Your task to perform on an android device: open app "Roku - Official Remote Control" (install if not already installed), go to login, and select forgot password Image 0: 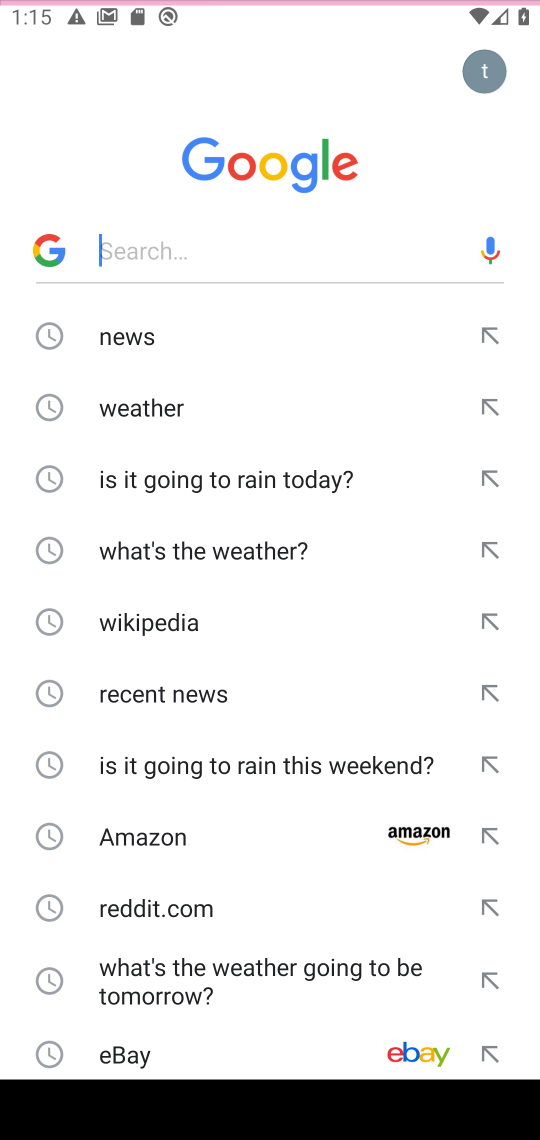
Step 0: press back button
Your task to perform on an android device: open app "Roku - Official Remote Control" (install if not already installed), go to login, and select forgot password Image 1: 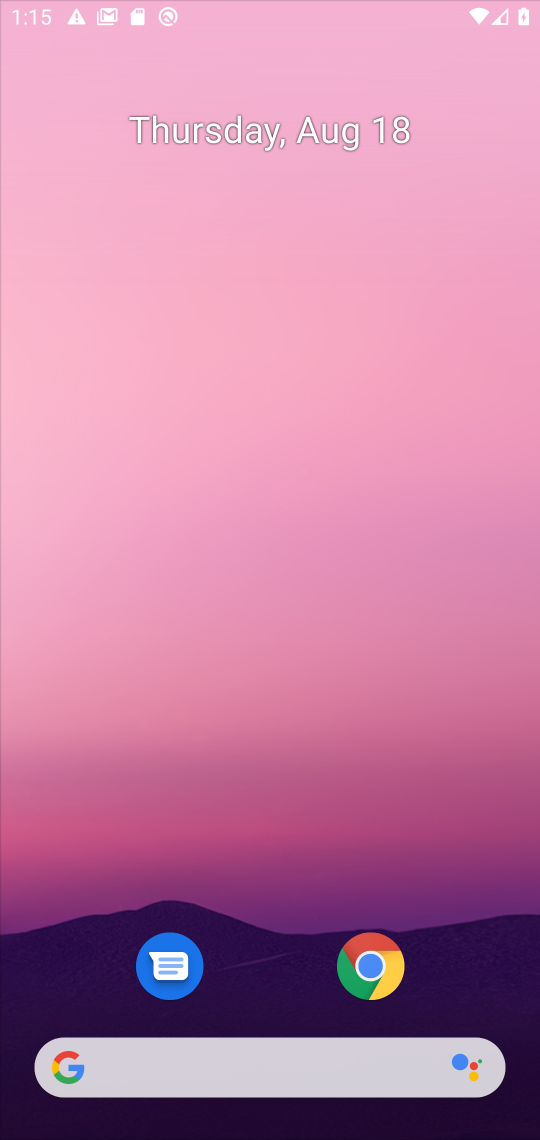
Step 1: press back button
Your task to perform on an android device: open app "Roku - Official Remote Control" (install if not already installed), go to login, and select forgot password Image 2: 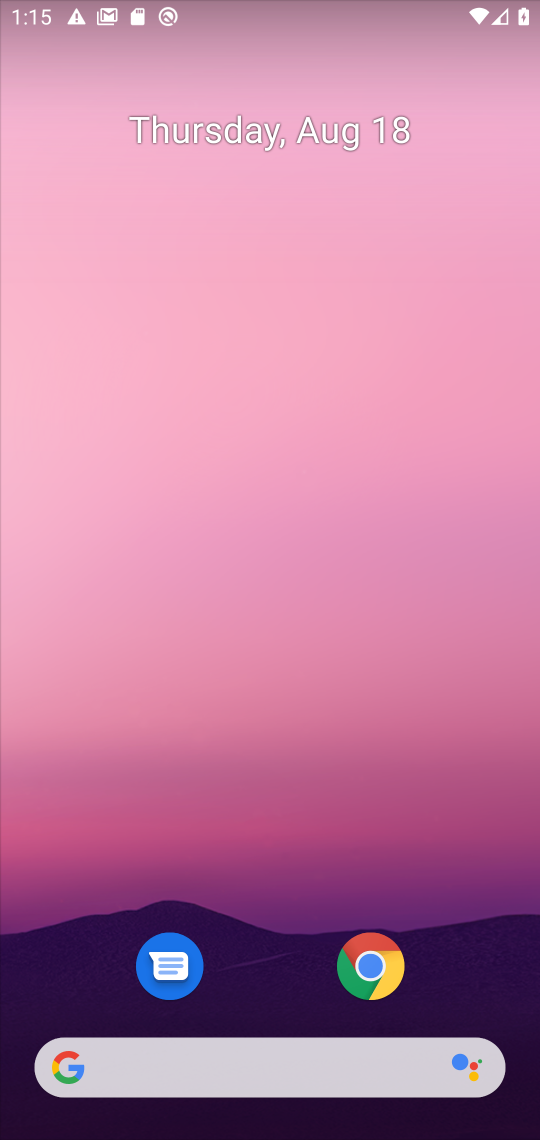
Step 2: drag from (280, 1035) to (237, 63)
Your task to perform on an android device: open app "Roku - Official Remote Control" (install if not already installed), go to login, and select forgot password Image 3: 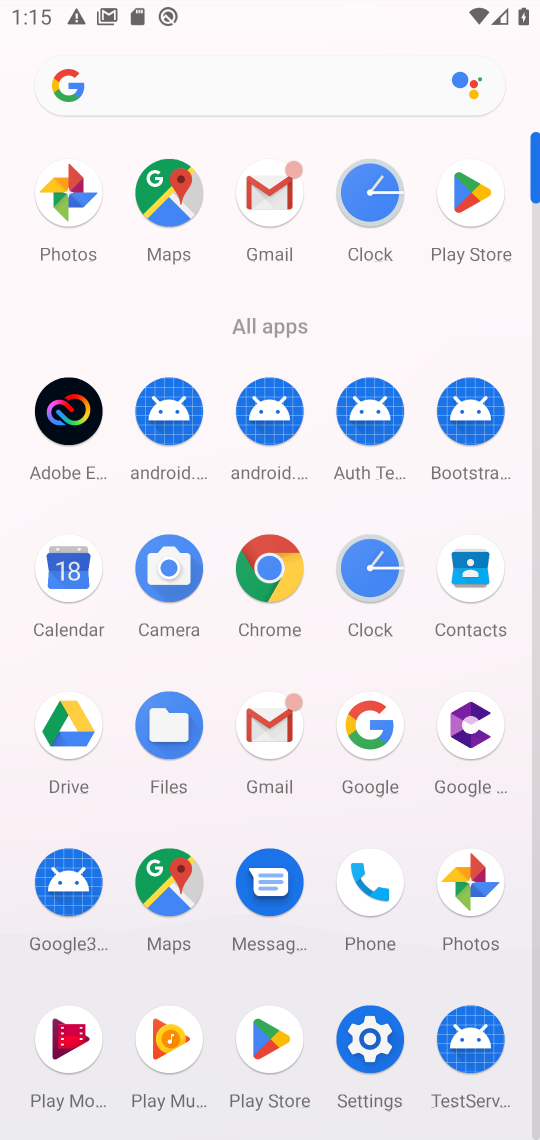
Step 3: click (261, 1050)
Your task to perform on an android device: open app "Roku - Official Remote Control" (install if not already installed), go to login, and select forgot password Image 4: 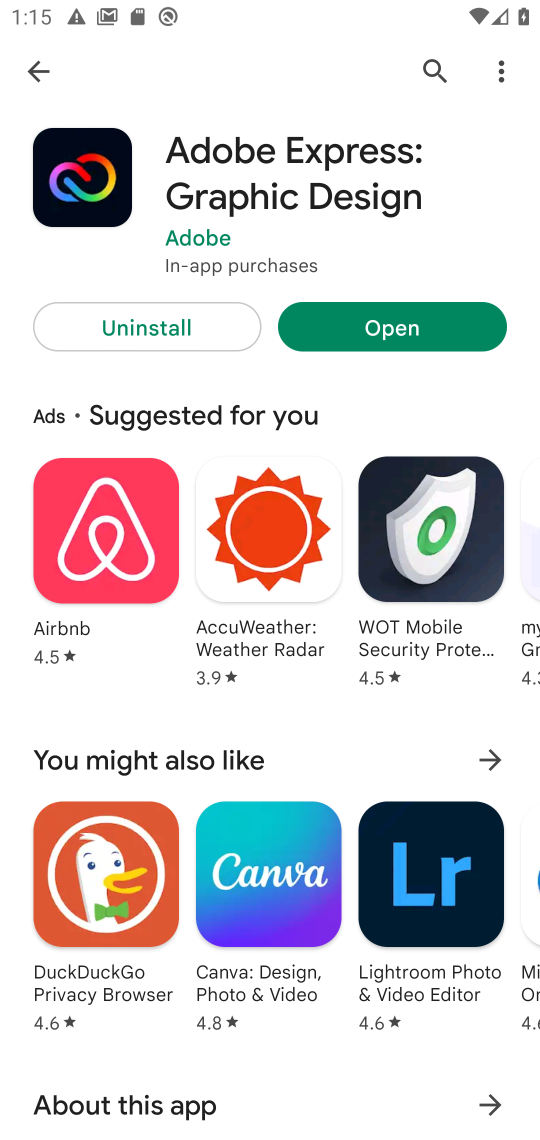
Step 4: click (39, 78)
Your task to perform on an android device: open app "Roku - Official Remote Control" (install if not already installed), go to login, and select forgot password Image 5: 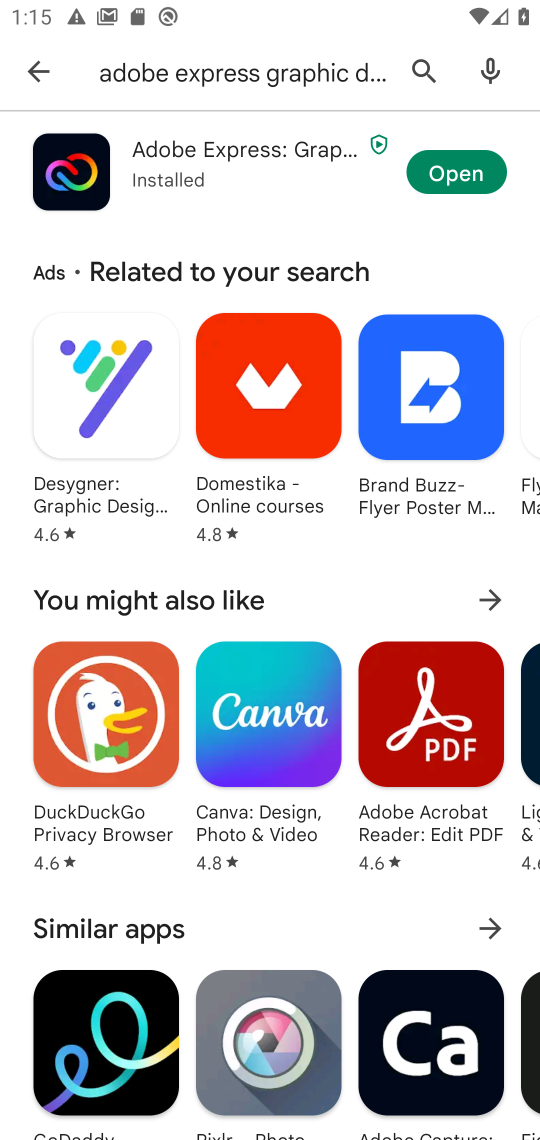
Step 5: click (409, 69)
Your task to perform on an android device: open app "Roku - Official Remote Control" (install if not already installed), go to login, and select forgot password Image 6: 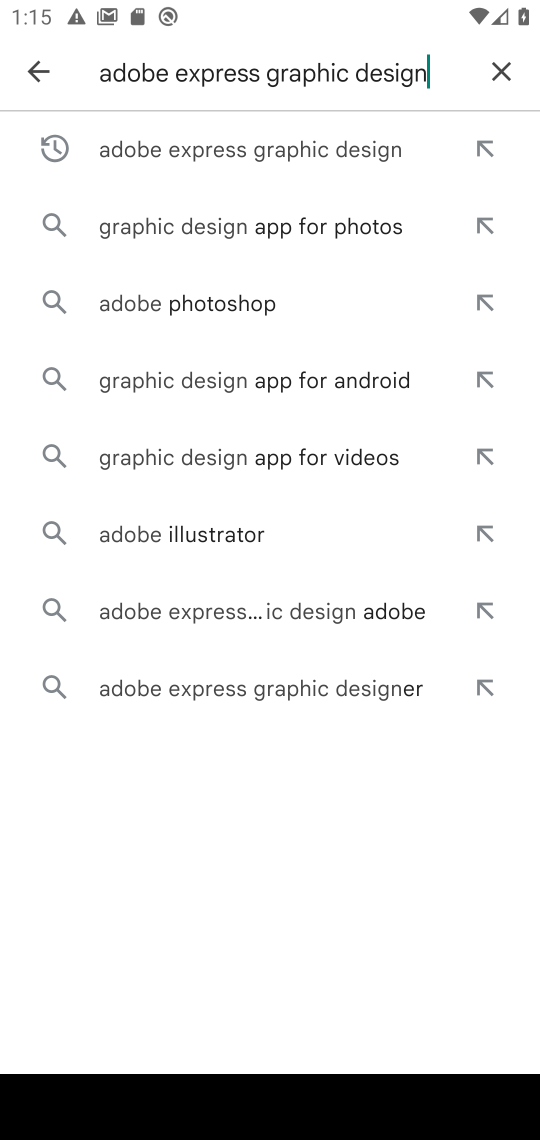
Step 6: click (496, 71)
Your task to perform on an android device: open app "Roku - Official Remote Control" (install if not already installed), go to login, and select forgot password Image 7: 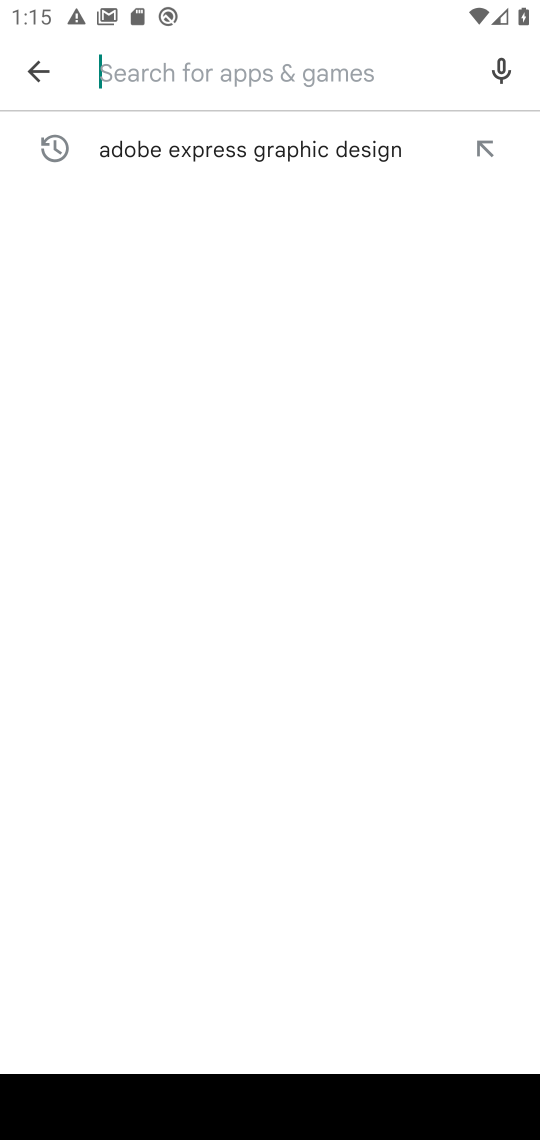
Step 7: type "Roku"
Your task to perform on an android device: open app "Roku - Official Remote Control" (install if not already installed), go to login, and select forgot password Image 8: 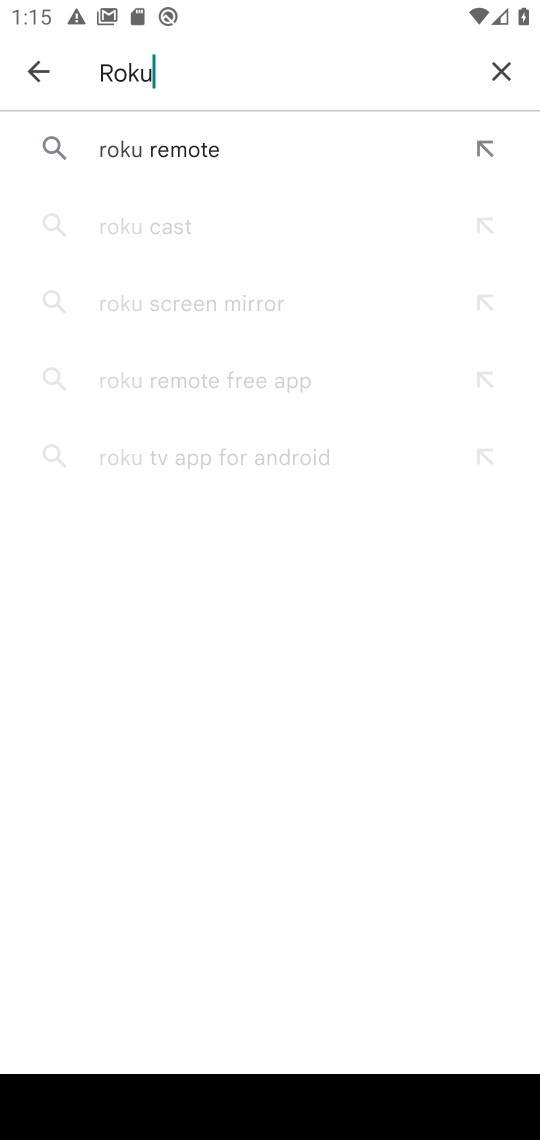
Step 8: type ""
Your task to perform on an android device: open app "Roku - Official Remote Control" (install if not already installed), go to login, and select forgot password Image 9: 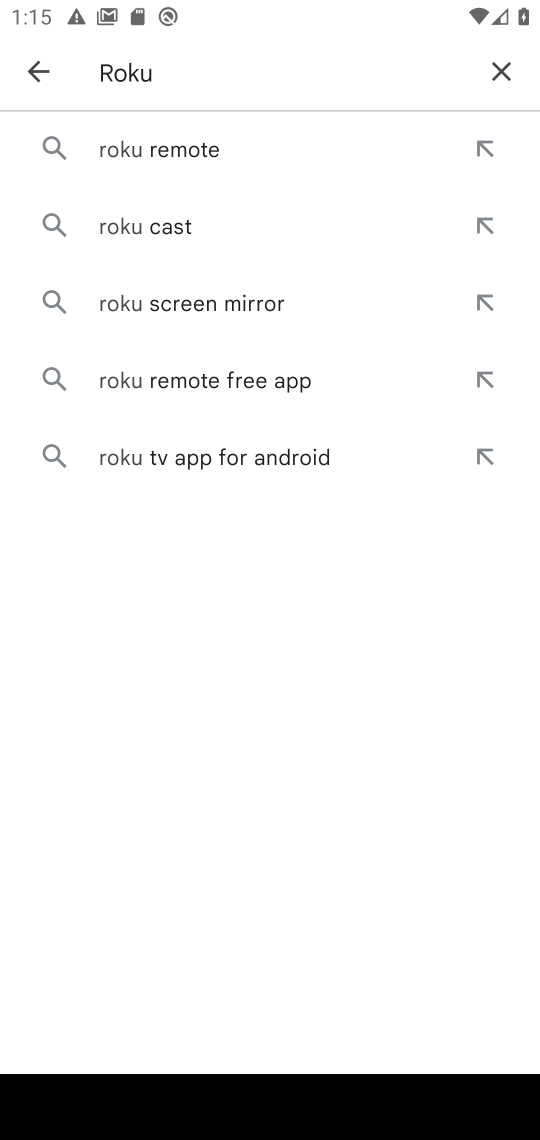
Step 9: click (160, 172)
Your task to perform on an android device: open app "Roku - Official Remote Control" (install if not already installed), go to login, and select forgot password Image 10: 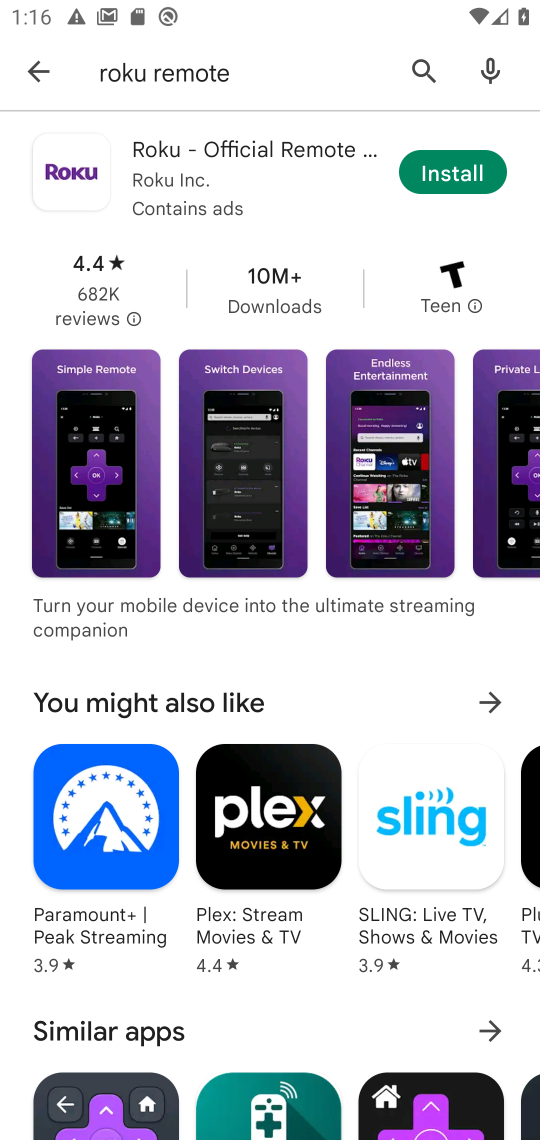
Step 10: click (457, 169)
Your task to perform on an android device: open app "Roku - Official Remote Control" (install if not already installed), go to login, and select forgot password Image 11: 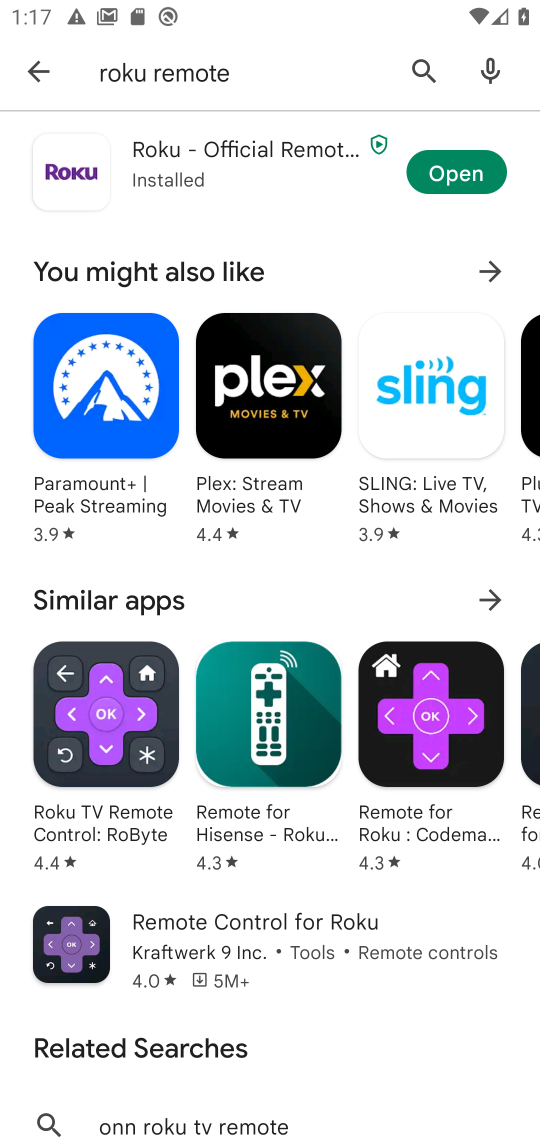
Step 11: click (474, 174)
Your task to perform on an android device: open app "Roku - Official Remote Control" (install if not already installed), go to login, and select forgot password Image 12: 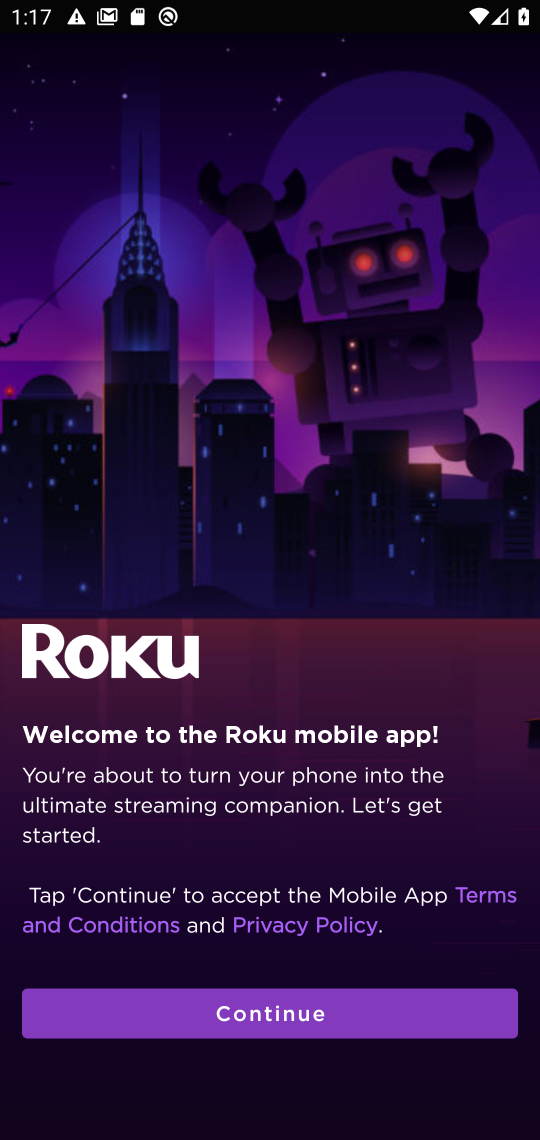
Step 12: click (354, 1012)
Your task to perform on an android device: open app "Roku - Official Remote Control" (install if not already installed), go to login, and select forgot password Image 13: 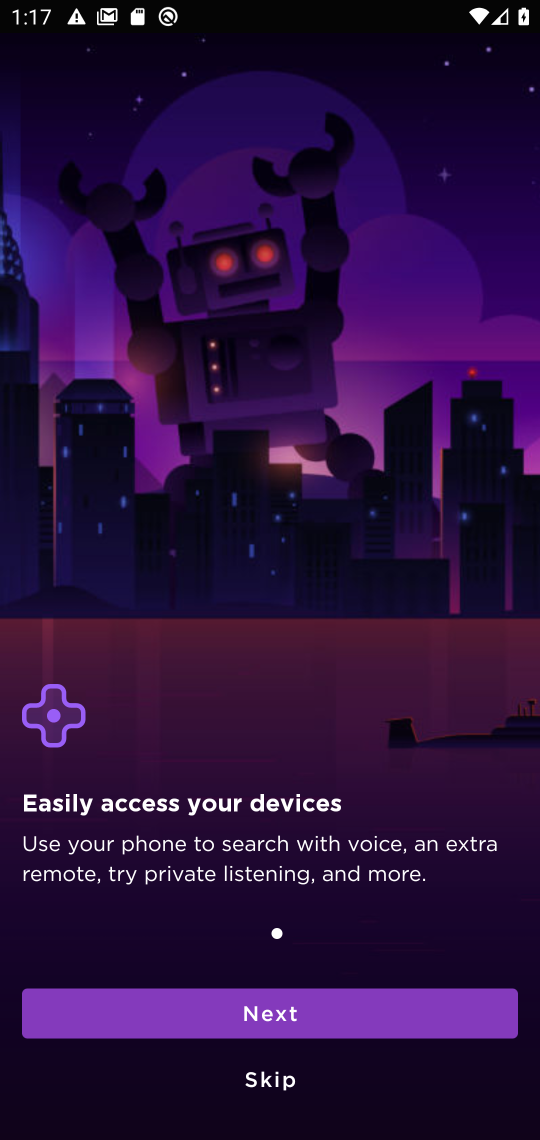
Step 13: click (265, 1026)
Your task to perform on an android device: open app "Roku - Official Remote Control" (install if not already installed), go to login, and select forgot password Image 14: 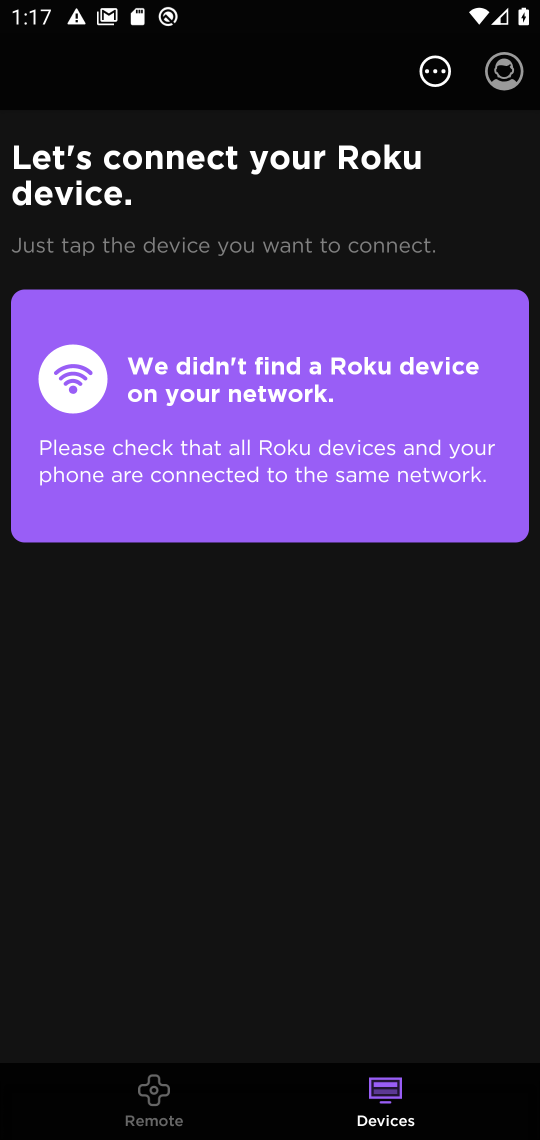
Step 14: task complete